Your task to perform on an android device: Open the Play Movies app and select the watchlist tab. Image 0: 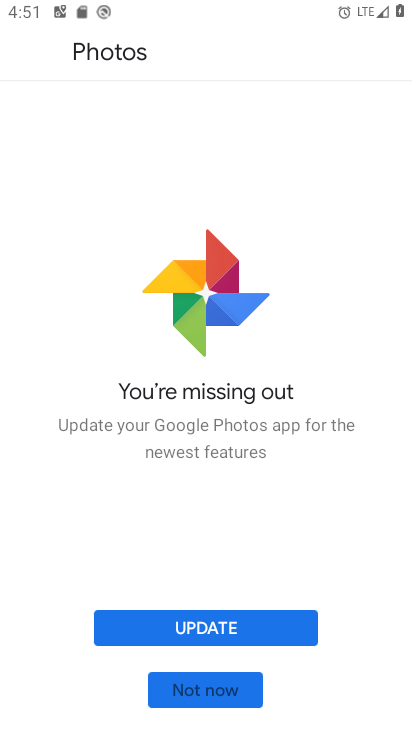
Step 0: press home button
Your task to perform on an android device: Open the Play Movies app and select the watchlist tab. Image 1: 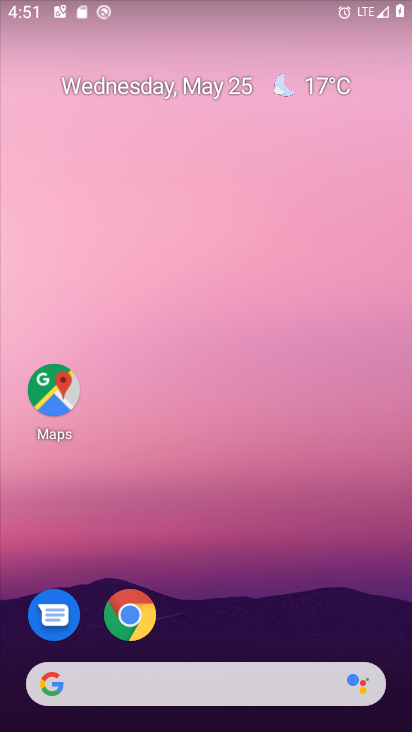
Step 1: drag from (282, 556) to (203, 1)
Your task to perform on an android device: Open the Play Movies app and select the watchlist tab. Image 2: 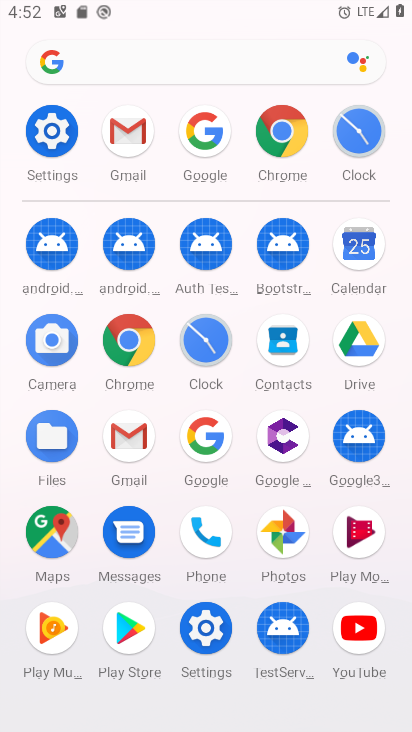
Step 2: click (360, 534)
Your task to perform on an android device: Open the Play Movies app and select the watchlist tab. Image 3: 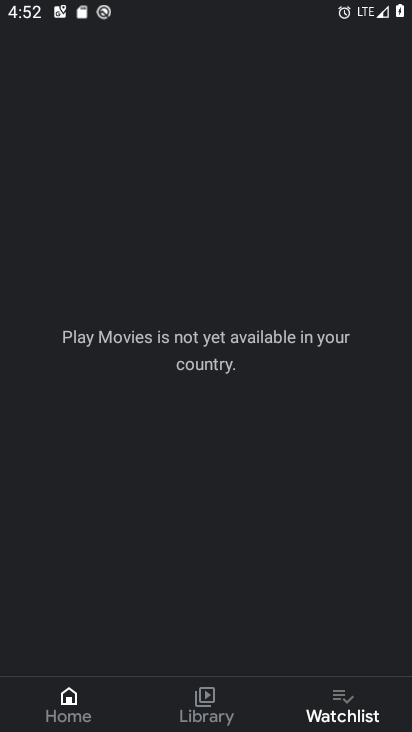
Step 3: task complete